Your task to perform on an android device: open app "Google Duo" Image 0: 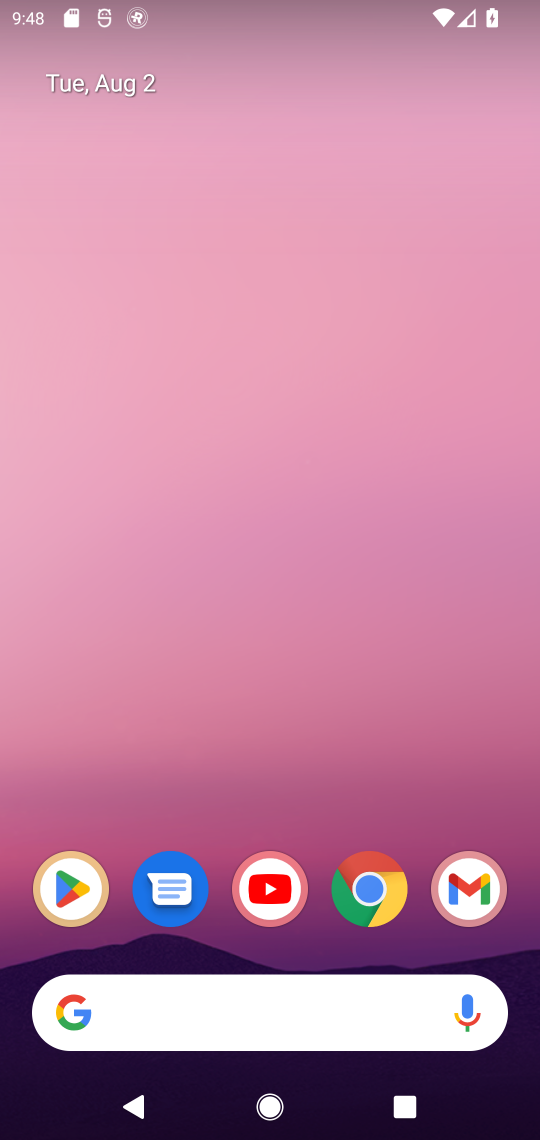
Step 0: click (69, 901)
Your task to perform on an android device: open app "Google Duo" Image 1: 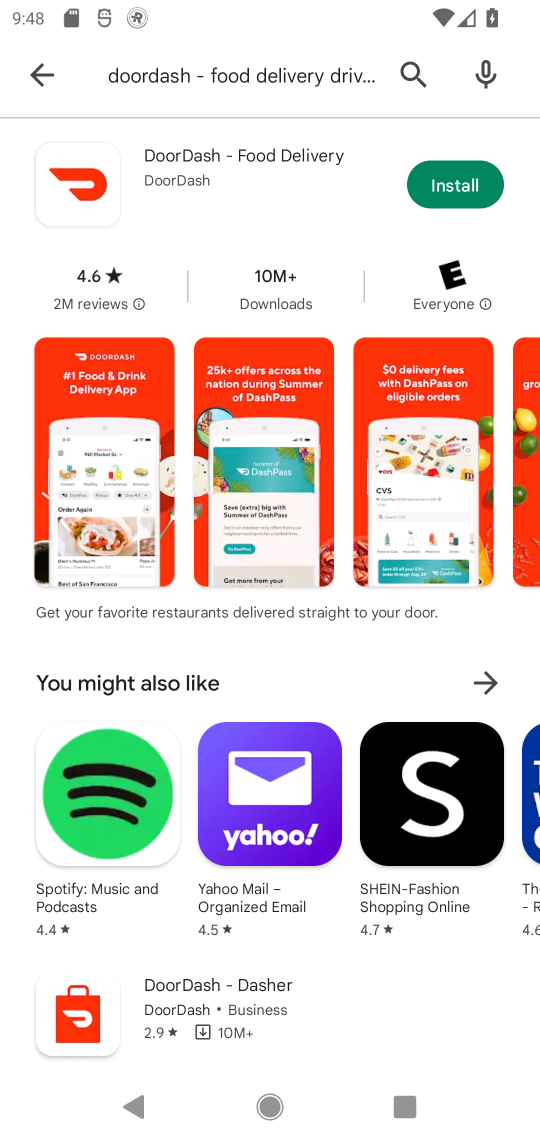
Step 1: click (410, 78)
Your task to perform on an android device: open app "Google Duo" Image 2: 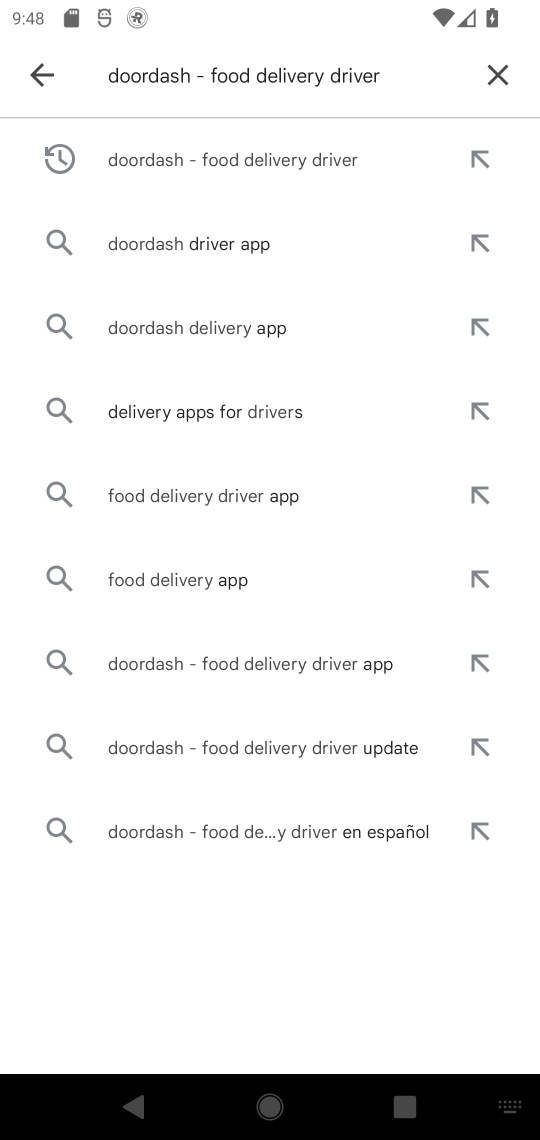
Step 2: click (493, 73)
Your task to perform on an android device: open app "Google Duo" Image 3: 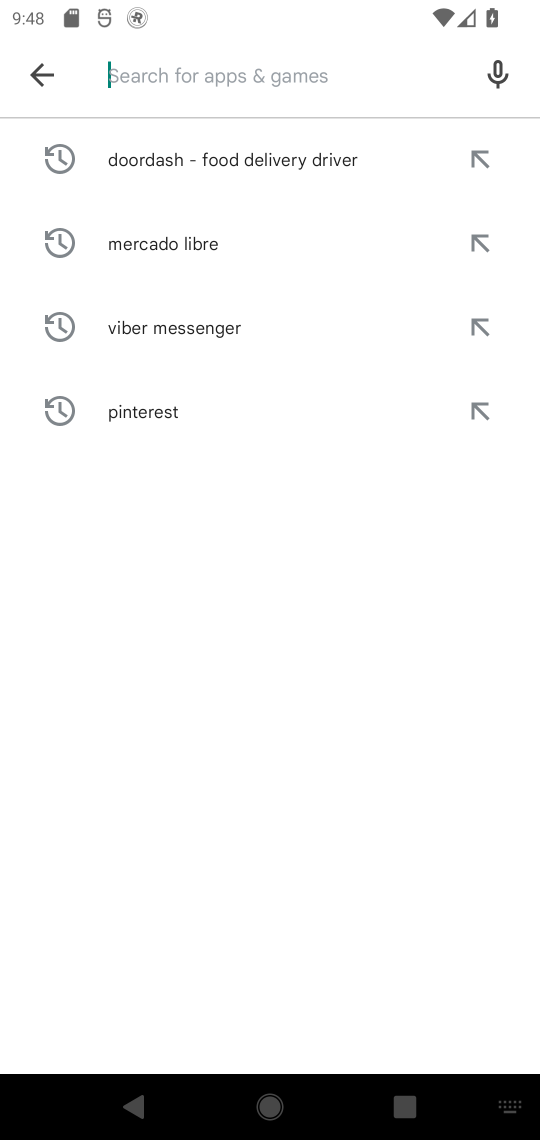
Step 3: type "Google Duo"
Your task to perform on an android device: open app "Google Duo" Image 4: 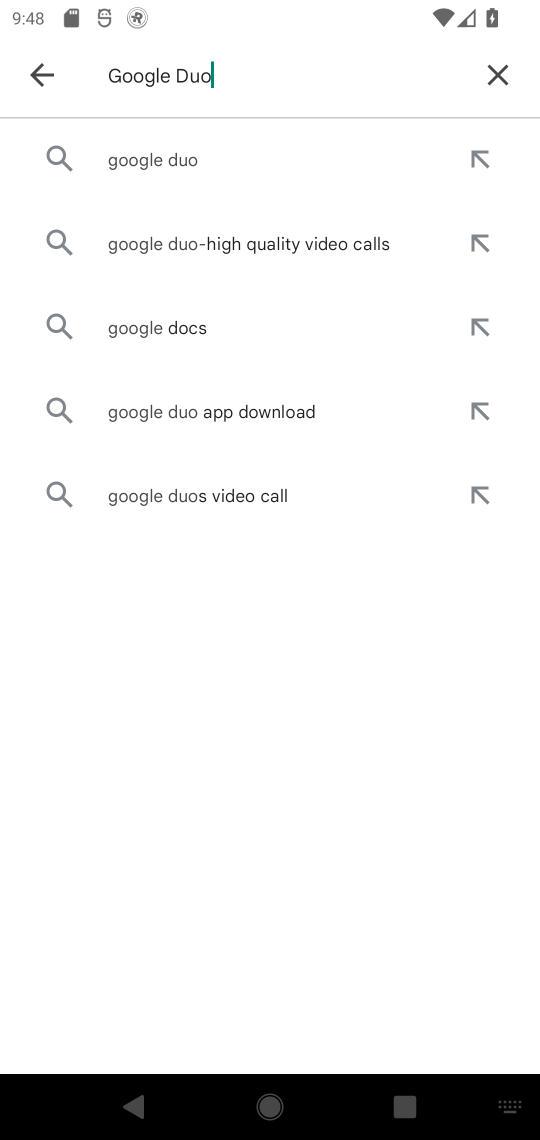
Step 4: click (190, 160)
Your task to perform on an android device: open app "Google Duo" Image 5: 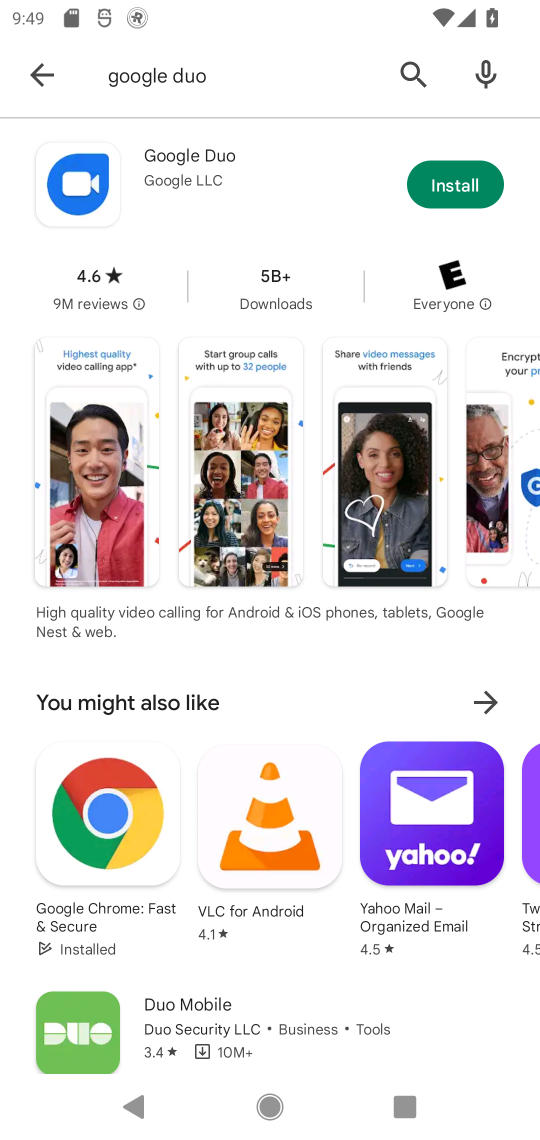
Step 5: task complete